Your task to perform on an android device: Open wifi settings Image 0: 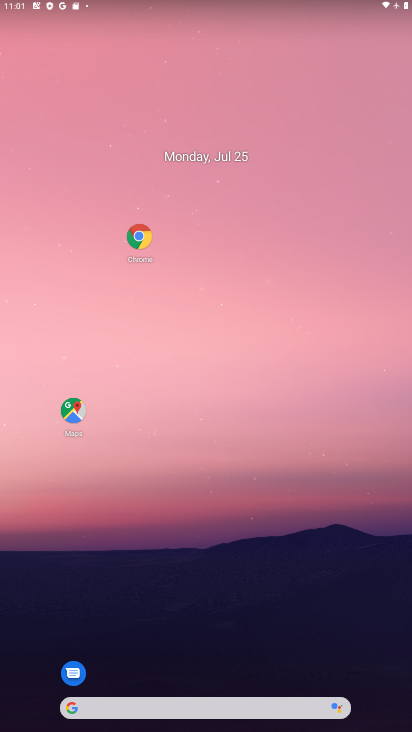
Step 0: drag from (278, 638) to (272, 19)
Your task to perform on an android device: Open wifi settings Image 1: 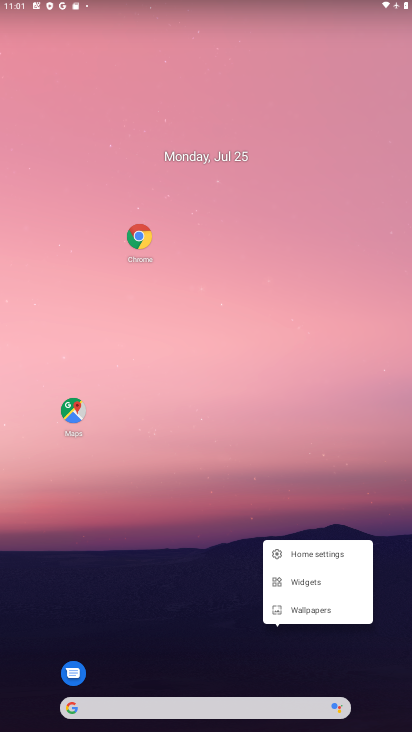
Step 1: click (203, 562)
Your task to perform on an android device: Open wifi settings Image 2: 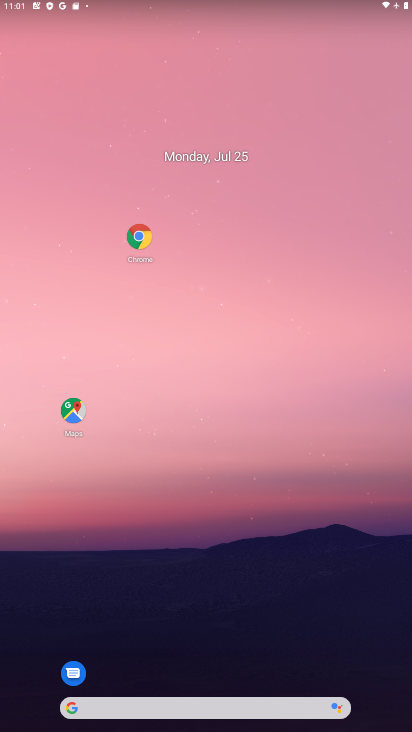
Step 2: drag from (211, 669) to (212, 146)
Your task to perform on an android device: Open wifi settings Image 3: 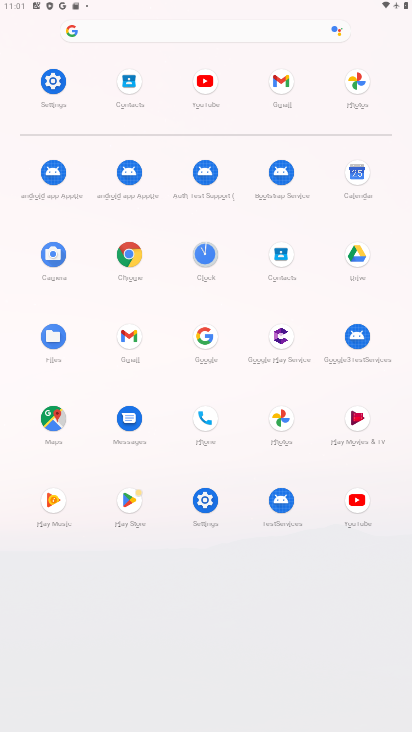
Step 3: click (51, 84)
Your task to perform on an android device: Open wifi settings Image 4: 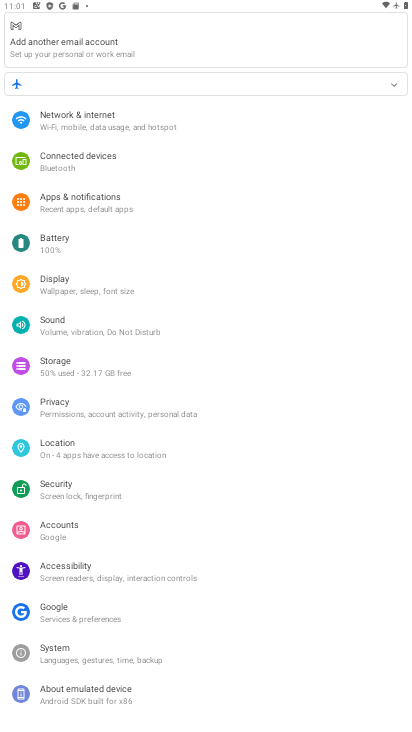
Step 4: click (163, 133)
Your task to perform on an android device: Open wifi settings Image 5: 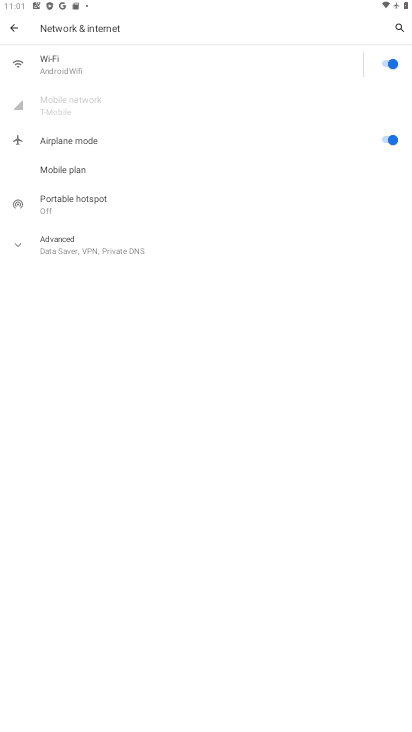
Step 5: task complete